Your task to perform on an android device: open app "Microsoft Outlook" Image 0: 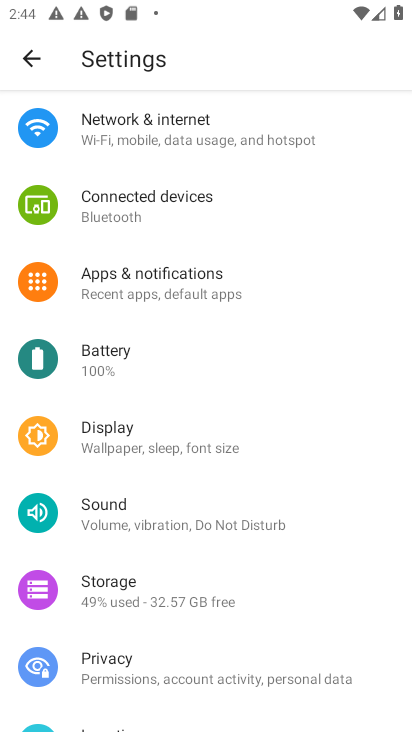
Step 0: press home button
Your task to perform on an android device: open app "Microsoft Outlook" Image 1: 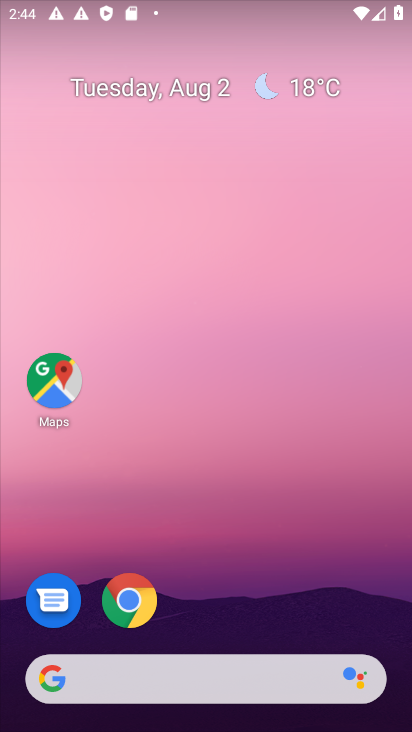
Step 1: drag from (142, 520) to (197, 55)
Your task to perform on an android device: open app "Microsoft Outlook" Image 2: 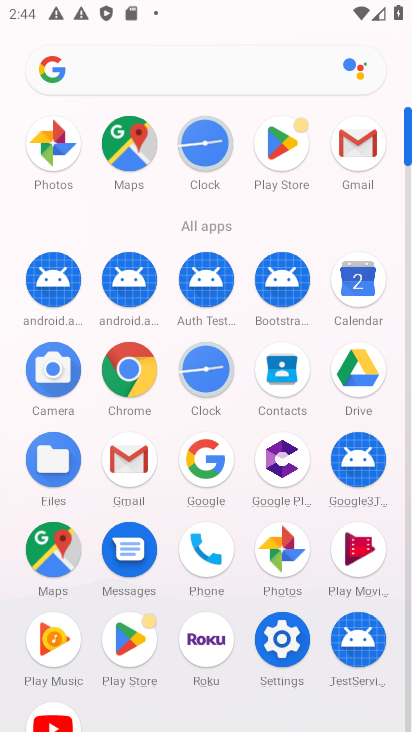
Step 2: click (284, 136)
Your task to perform on an android device: open app "Microsoft Outlook" Image 3: 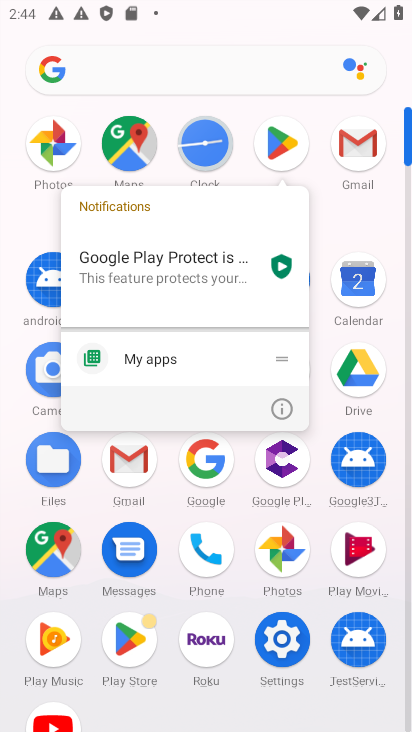
Step 3: click (284, 136)
Your task to perform on an android device: open app "Microsoft Outlook" Image 4: 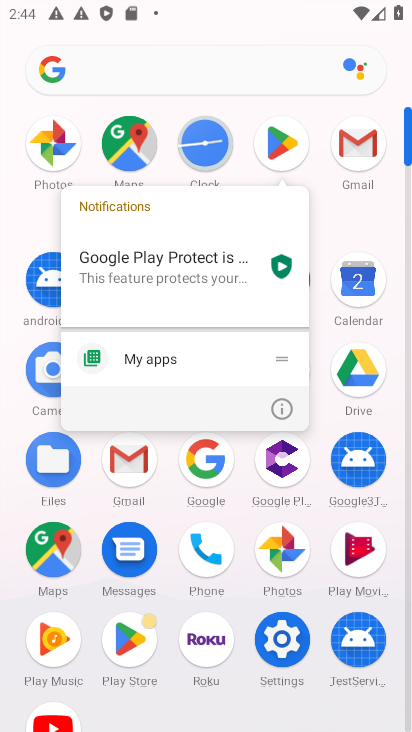
Step 4: click (303, 103)
Your task to perform on an android device: open app "Microsoft Outlook" Image 5: 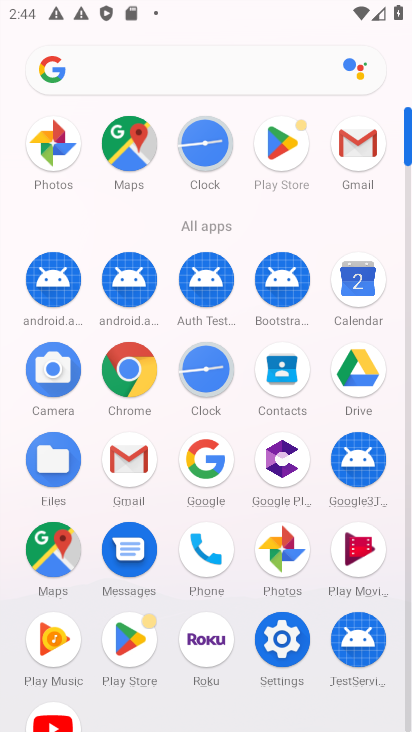
Step 5: click (301, 138)
Your task to perform on an android device: open app "Microsoft Outlook" Image 6: 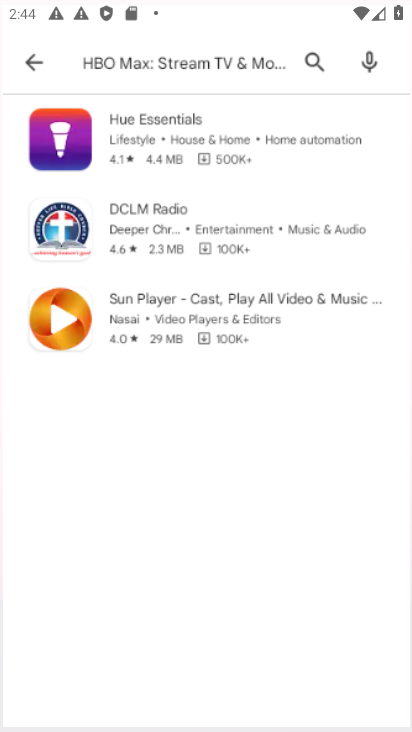
Step 6: click (277, 146)
Your task to perform on an android device: open app "Microsoft Outlook" Image 7: 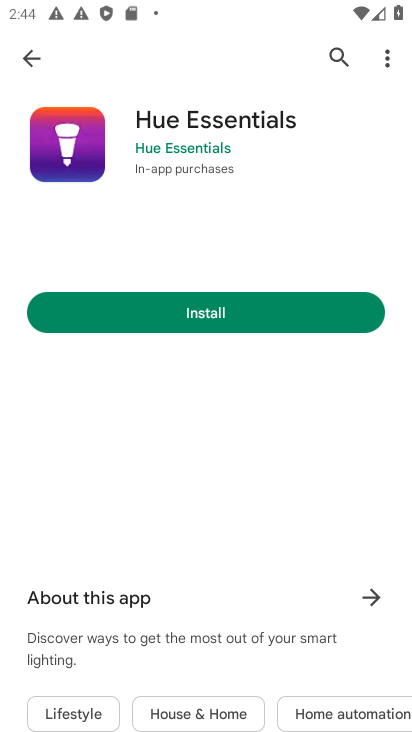
Step 7: click (306, 61)
Your task to perform on an android device: open app "Microsoft Outlook" Image 8: 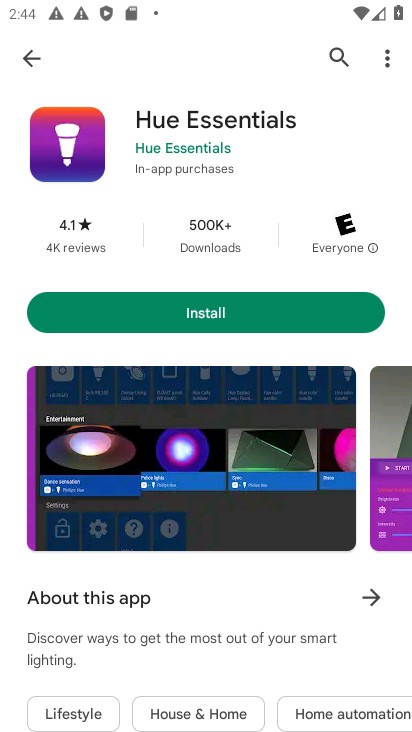
Step 8: click (342, 55)
Your task to perform on an android device: open app "Microsoft Outlook" Image 9: 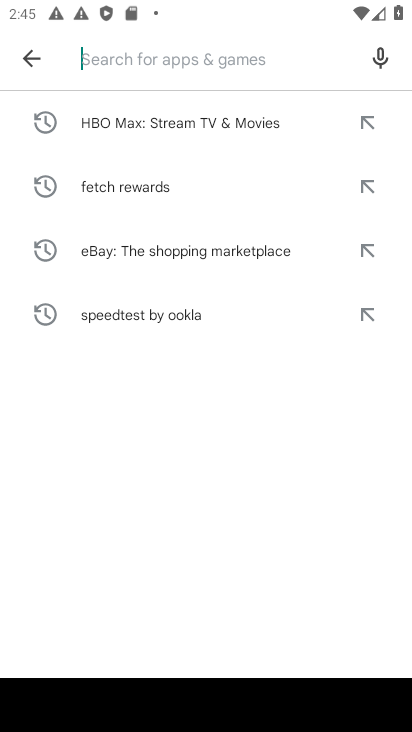
Step 9: type "Microsoft outlook"
Your task to perform on an android device: open app "Microsoft Outlook" Image 10: 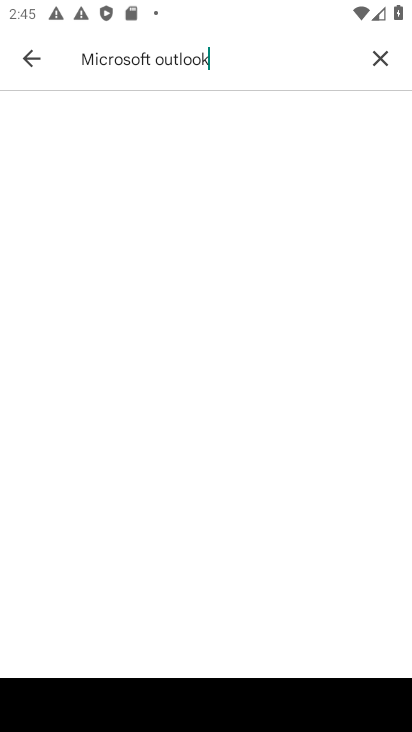
Step 10: press enter
Your task to perform on an android device: open app "Microsoft Outlook" Image 11: 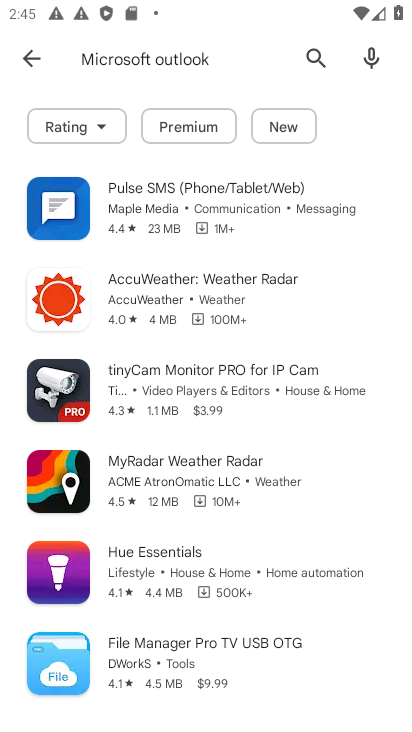
Step 11: task complete